Your task to perform on an android device: change keyboard looks Image 0: 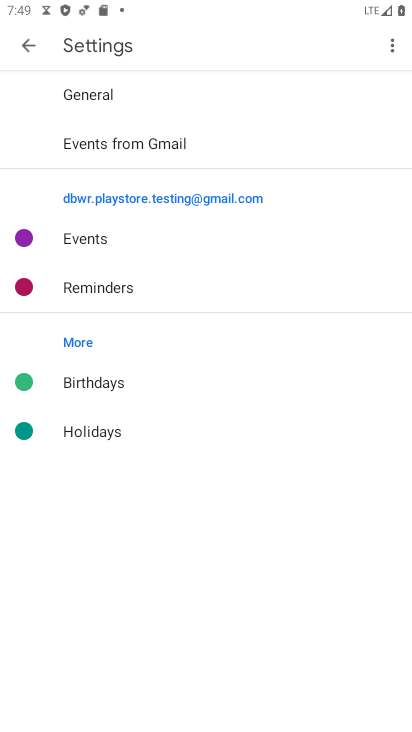
Step 0: press home button
Your task to perform on an android device: change keyboard looks Image 1: 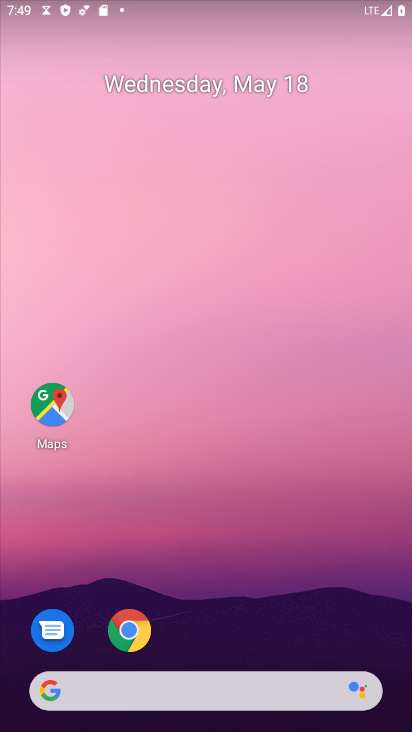
Step 1: drag from (296, 552) to (258, 79)
Your task to perform on an android device: change keyboard looks Image 2: 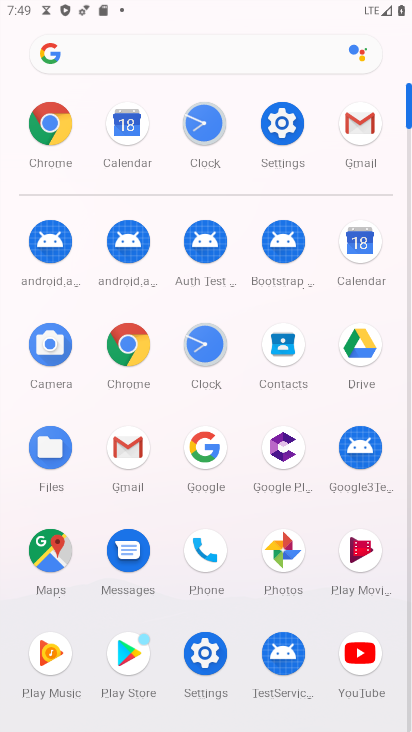
Step 2: click (272, 132)
Your task to perform on an android device: change keyboard looks Image 3: 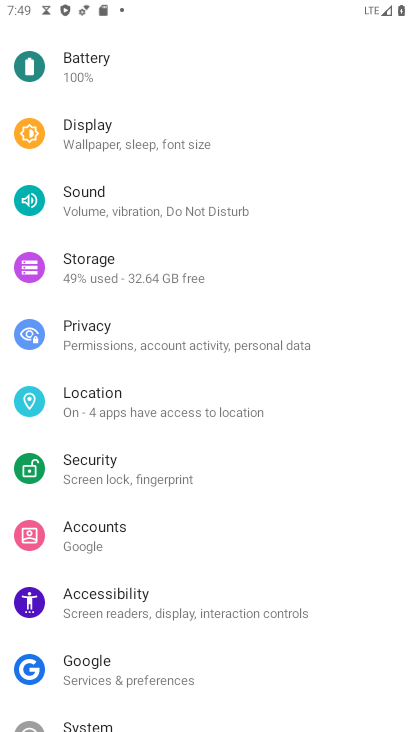
Step 3: drag from (191, 575) to (182, 68)
Your task to perform on an android device: change keyboard looks Image 4: 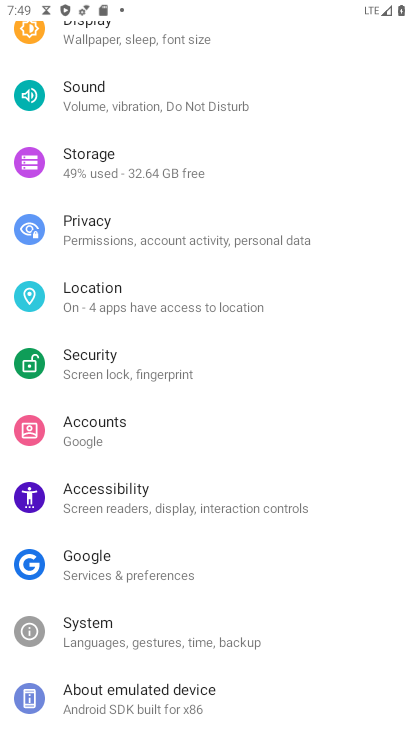
Step 4: click (189, 630)
Your task to perform on an android device: change keyboard looks Image 5: 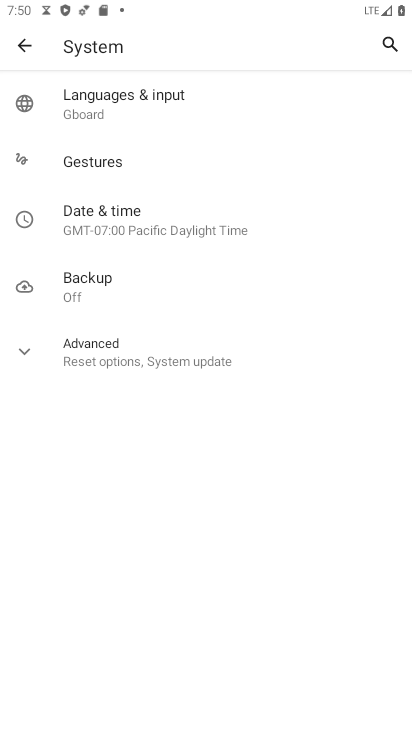
Step 5: click (103, 123)
Your task to perform on an android device: change keyboard looks Image 6: 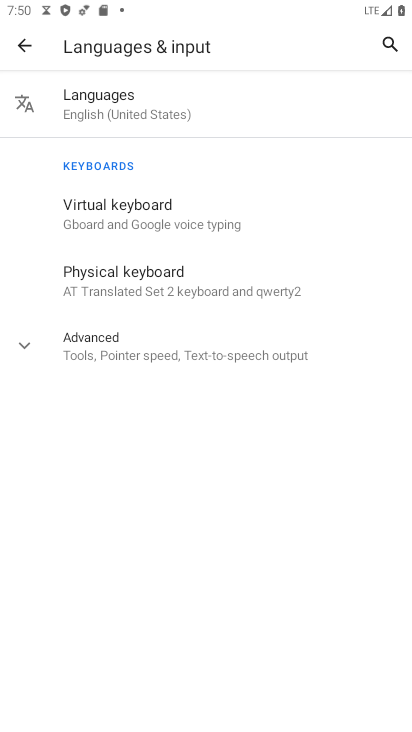
Step 6: click (147, 207)
Your task to perform on an android device: change keyboard looks Image 7: 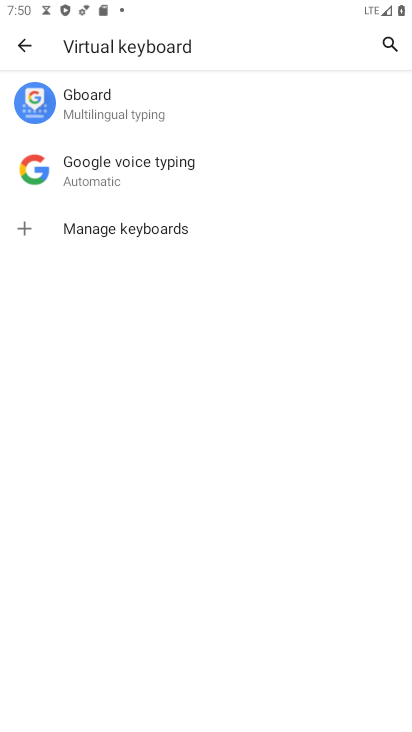
Step 7: click (95, 102)
Your task to perform on an android device: change keyboard looks Image 8: 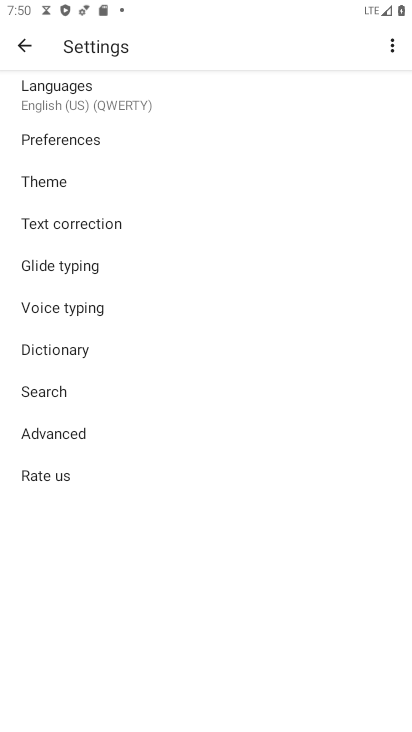
Step 8: click (96, 175)
Your task to perform on an android device: change keyboard looks Image 9: 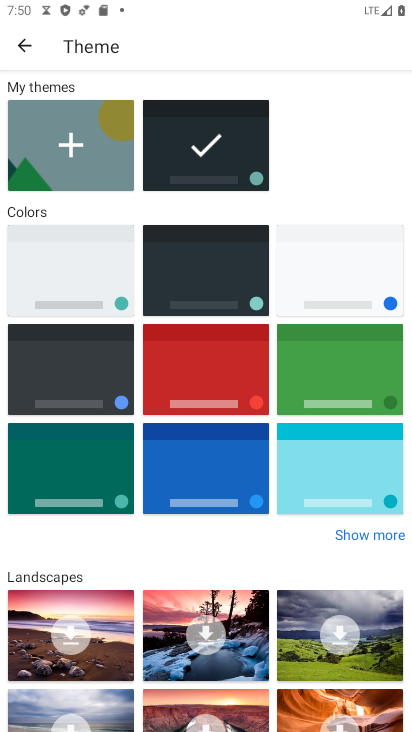
Step 9: click (94, 270)
Your task to perform on an android device: change keyboard looks Image 10: 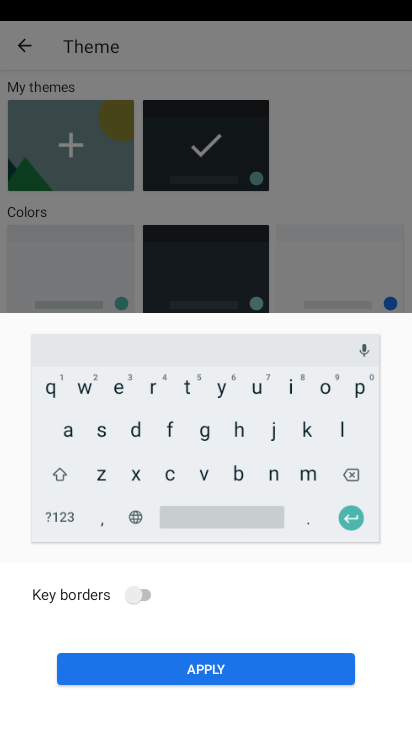
Step 10: click (197, 669)
Your task to perform on an android device: change keyboard looks Image 11: 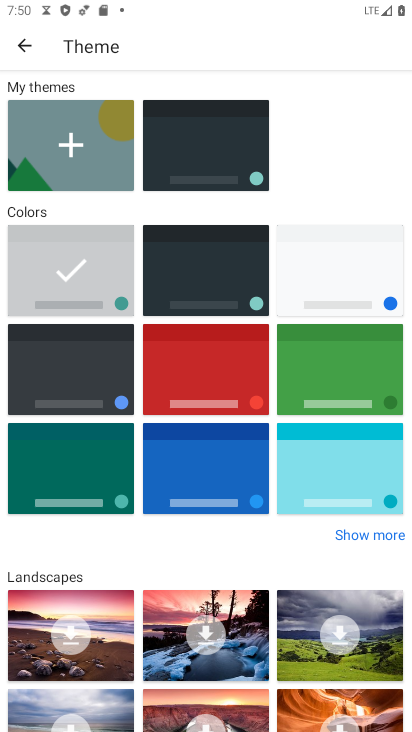
Step 11: task complete